Your task to perform on an android device: Is it going to rain today? Image 0: 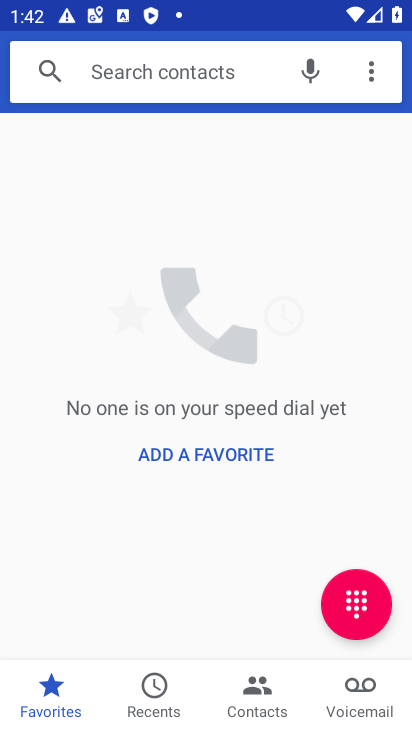
Step 0: press home button
Your task to perform on an android device: Is it going to rain today? Image 1: 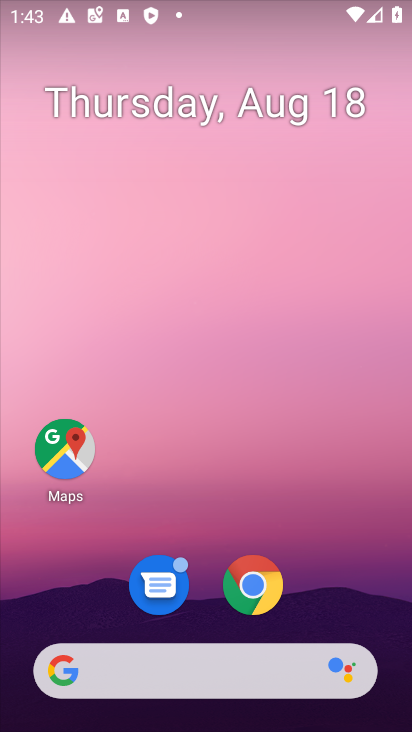
Step 1: click (190, 669)
Your task to perform on an android device: Is it going to rain today? Image 2: 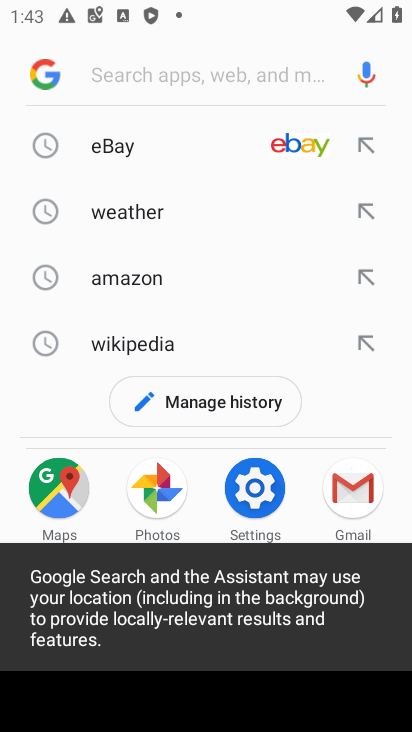
Step 2: click (185, 210)
Your task to perform on an android device: Is it going to rain today? Image 3: 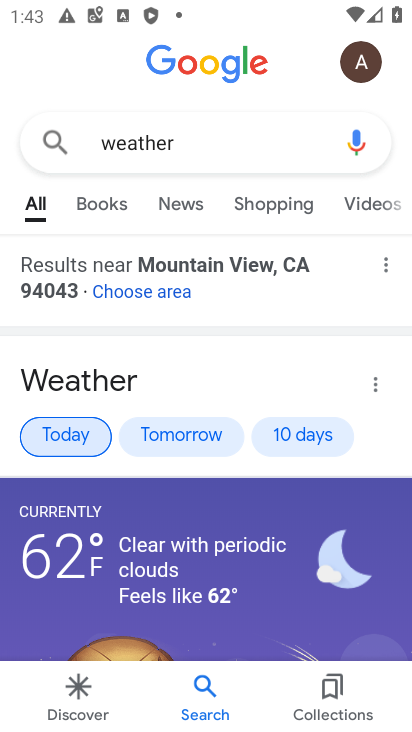
Step 3: click (84, 431)
Your task to perform on an android device: Is it going to rain today? Image 4: 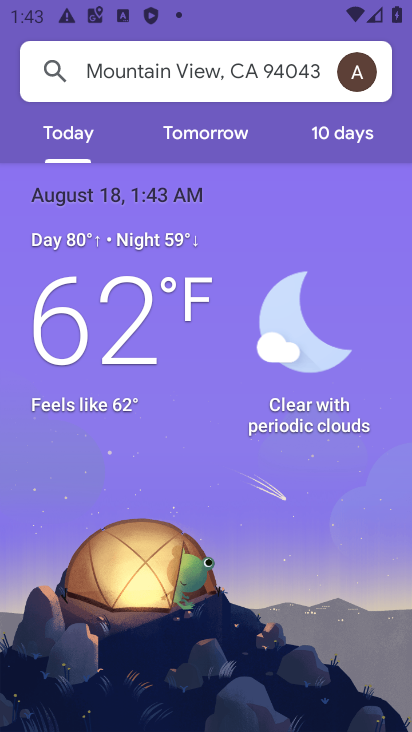
Step 4: task complete